Your task to perform on an android device: What is the recent news? Image 0: 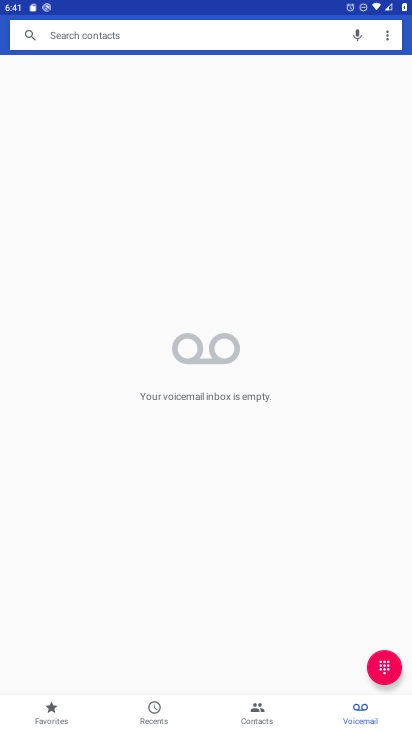
Step 0: press home button
Your task to perform on an android device: What is the recent news? Image 1: 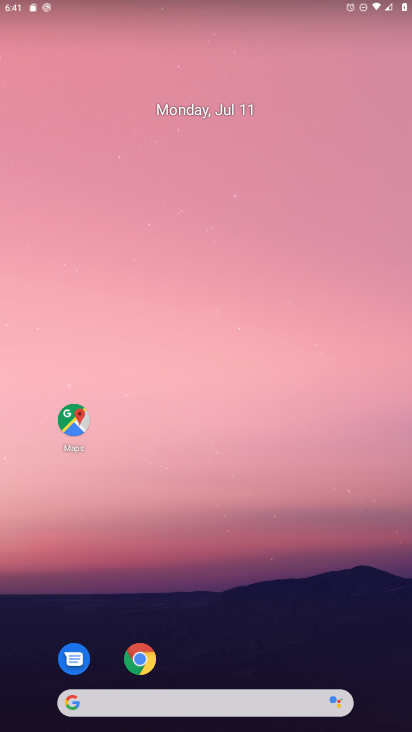
Step 1: task complete